Your task to perform on an android device: empty trash in google photos Image 0: 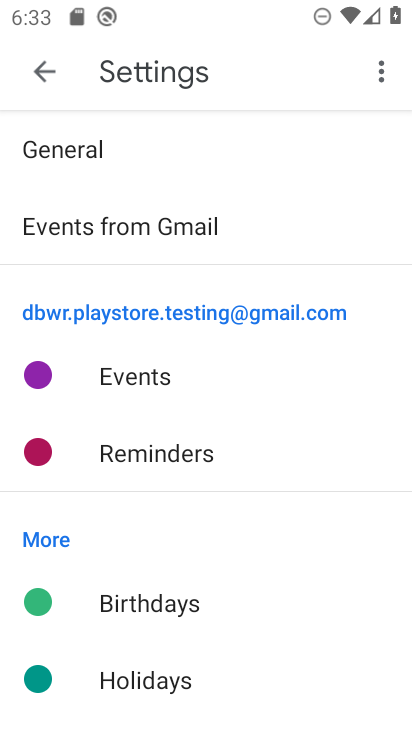
Step 0: press home button
Your task to perform on an android device: empty trash in google photos Image 1: 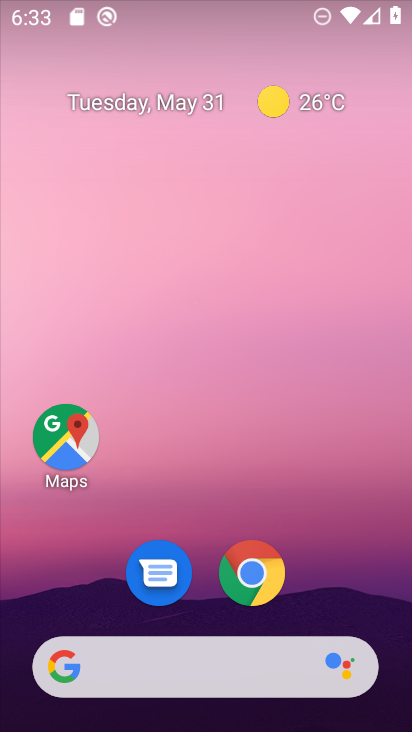
Step 1: drag from (396, 656) to (283, 0)
Your task to perform on an android device: empty trash in google photos Image 2: 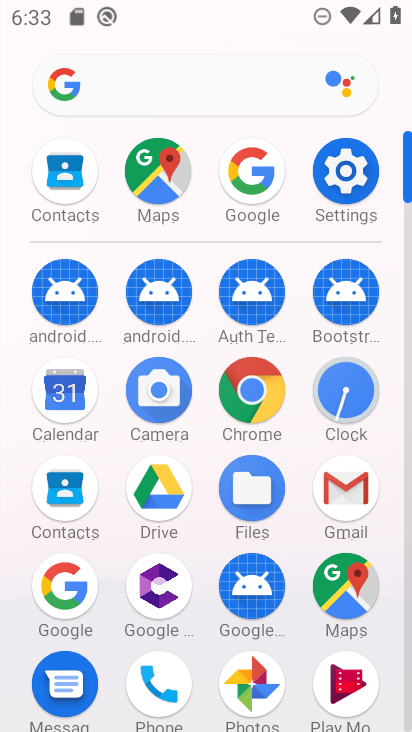
Step 2: click (253, 663)
Your task to perform on an android device: empty trash in google photos Image 3: 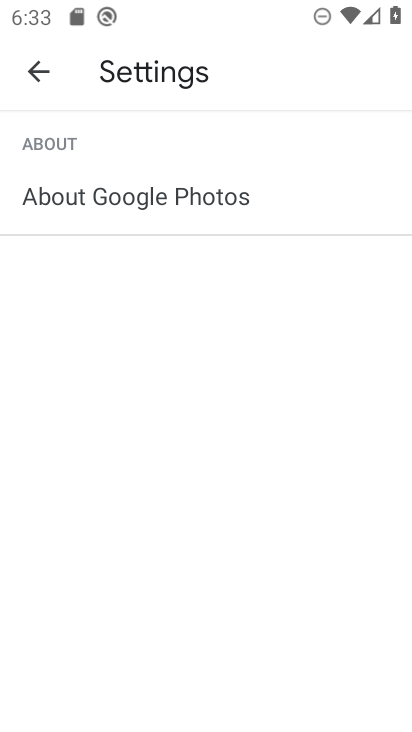
Step 3: press back button
Your task to perform on an android device: empty trash in google photos Image 4: 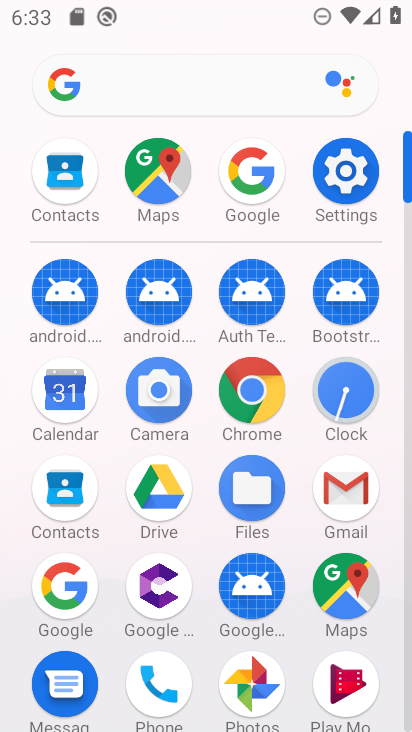
Step 4: click (261, 662)
Your task to perform on an android device: empty trash in google photos Image 5: 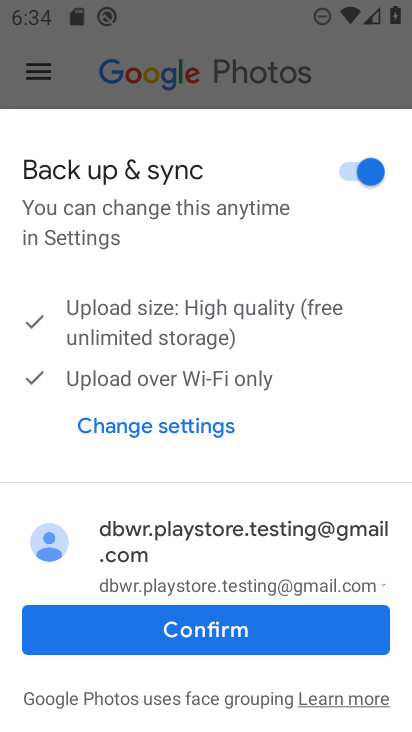
Step 5: click (191, 626)
Your task to perform on an android device: empty trash in google photos Image 6: 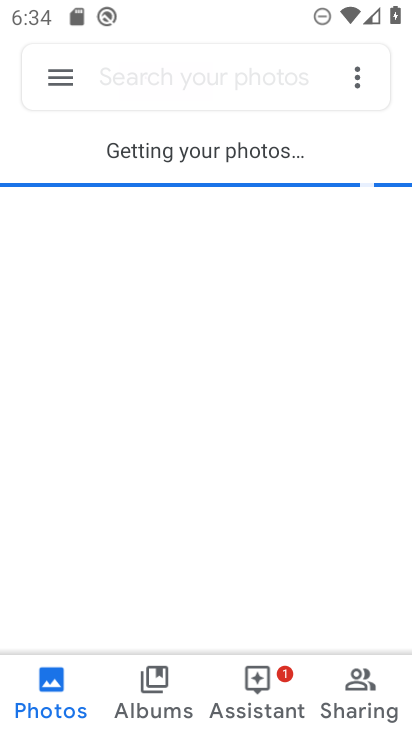
Step 6: click (67, 73)
Your task to perform on an android device: empty trash in google photos Image 7: 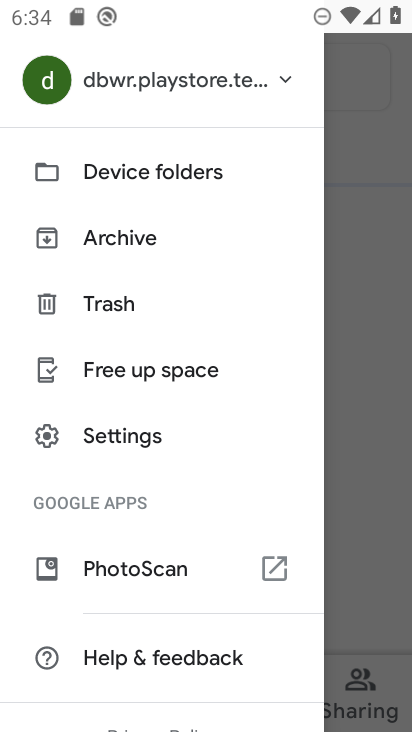
Step 7: click (134, 437)
Your task to perform on an android device: empty trash in google photos Image 8: 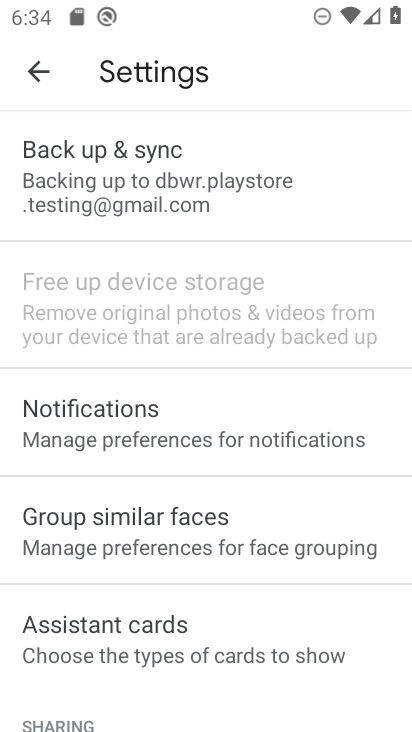
Step 8: click (37, 71)
Your task to perform on an android device: empty trash in google photos Image 9: 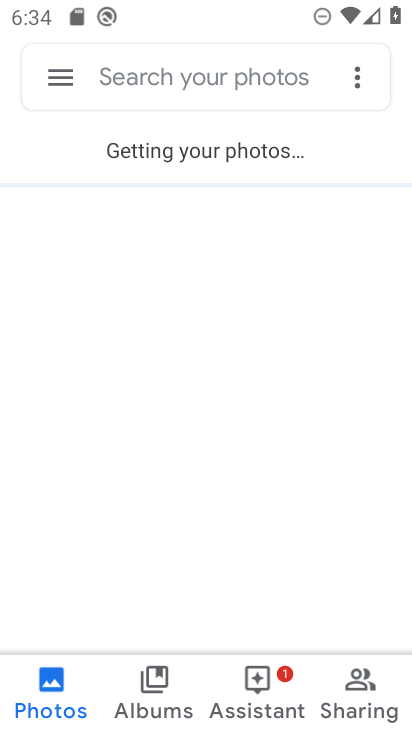
Step 9: click (37, 71)
Your task to perform on an android device: empty trash in google photos Image 10: 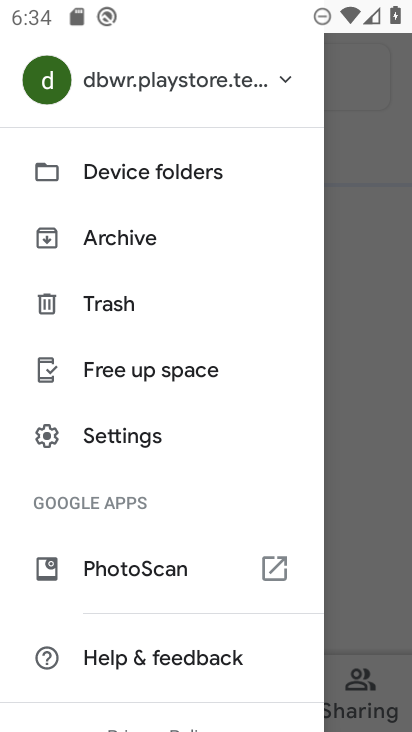
Step 10: click (103, 284)
Your task to perform on an android device: empty trash in google photos Image 11: 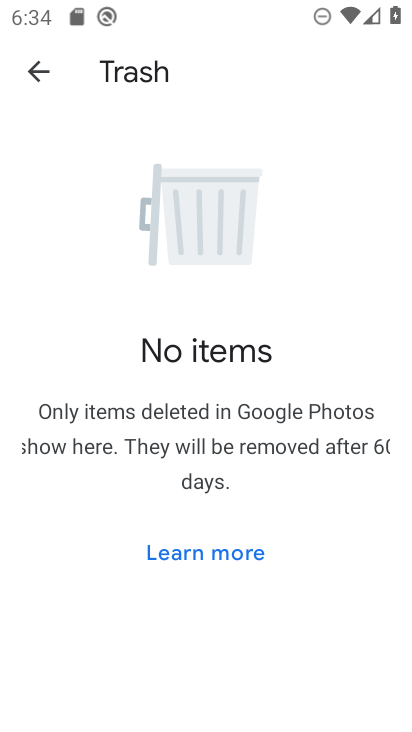
Step 11: task complete